Your task to perform on an android device: change the clock display to digital Image 0: 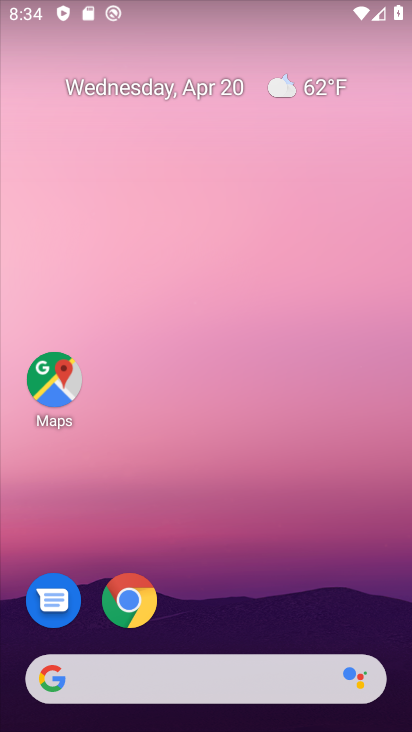
Step 0: drag from (200, 712) to (200, 146)
Your task to perform on an android device: change the clock display to digital Image 1: 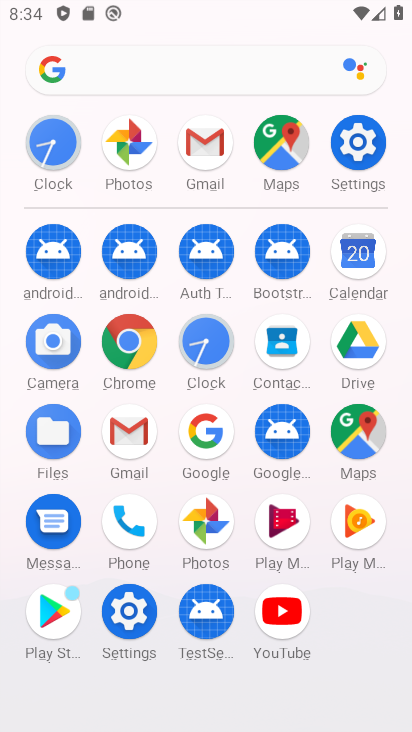
Step 1: click (205, 345)
Your task to perform on an android device: change the clock display to digital Image 2: 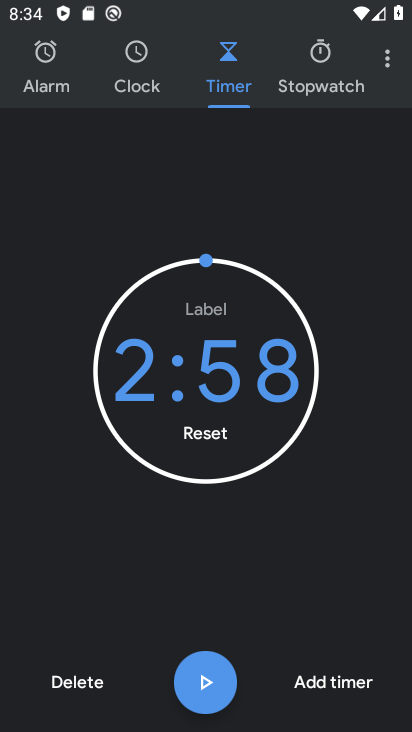
Step 2: click (205, 345)
Your task to perform on an android device: change the clock display to digital Image 3: 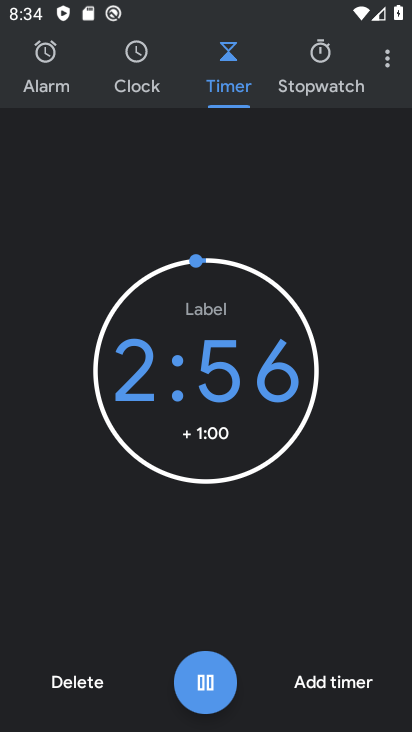
Step 3: click (388, 67)
Your task to perform on an android device: change the clock display to digital Image 4: 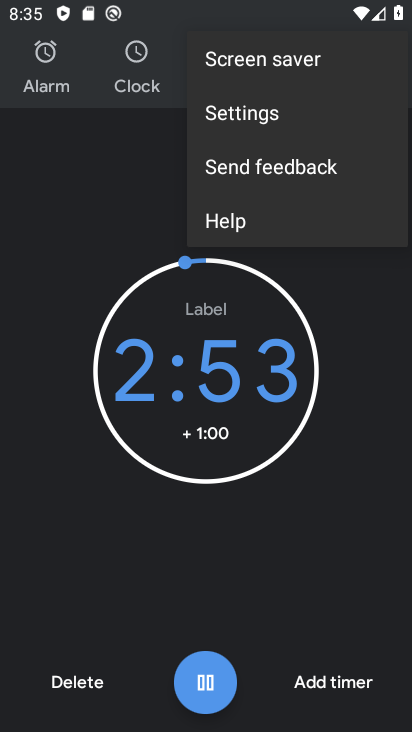
Step 4: click (234, 116)
Your task to perform on an android device: change the clock display to digital Image 5: 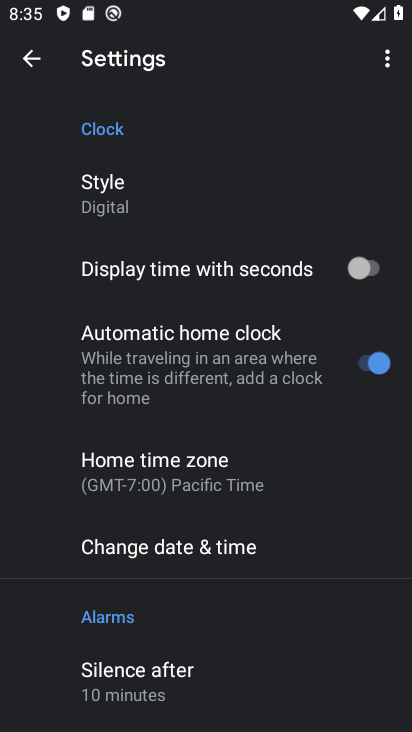
Step 5: task complete